Your task to perform on an android device: delete browsing data in the chrome app Image 0: 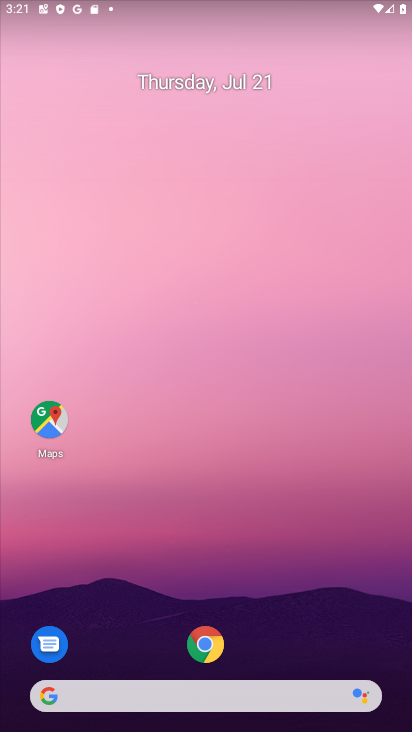
Step 0: click (209, 649)
Your task to perform on an android device: delete browsing data in the chrome app Image 1: 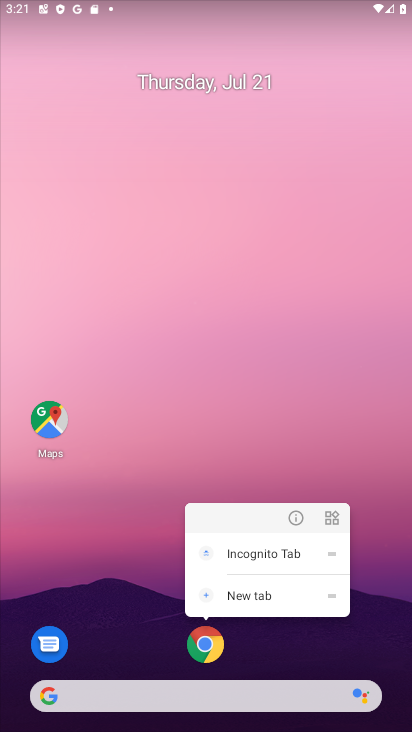
Step 1: click (205, 644)
Your task to perform on an android device: delete browsing data in the chrome app Image 2: 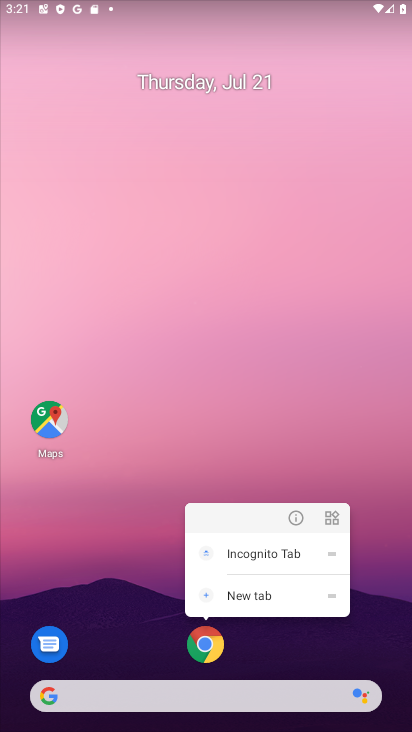
Step 2: click (213, 641)
Your task to perform on an android device: delete browsing data in the chrome app Image 3: 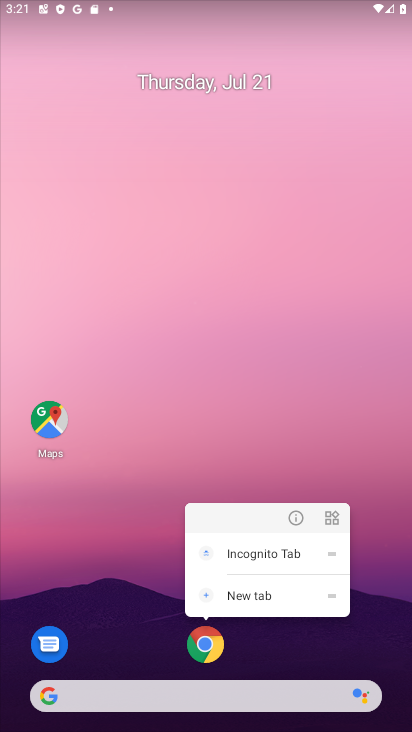
Step 3: click (213, 641)
Your task to perform on an android device: delete browsing data in the chrome app Image 4: 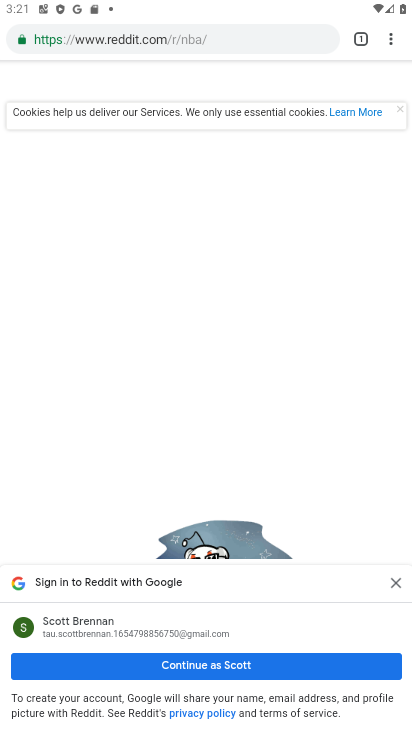
Step 4: drag from (389, 36) to (260, 512)
Your task to perform on an android device: delete browsing data in the chrome app Image 5: 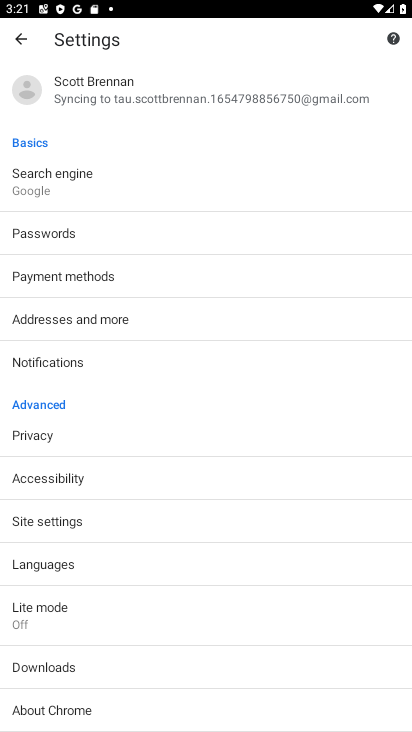
Step 5: click (66, 443)
Your task to perform on an android device: delete browsing data in the chrome app Image 6: 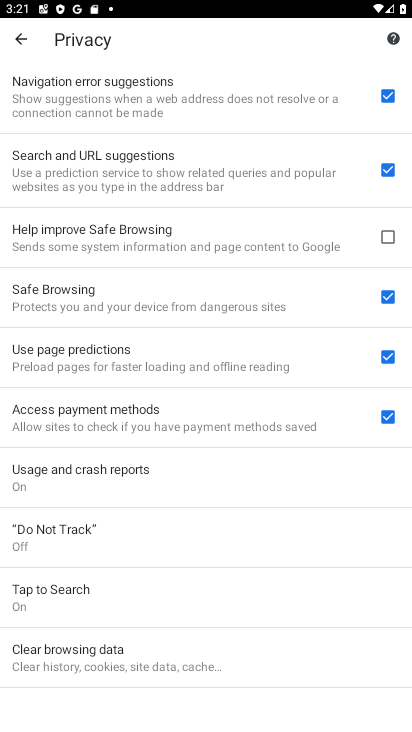
Step 6: click (122, 653)
Your task to perform on an android device: delete browsing data in the chrome app Image 7: 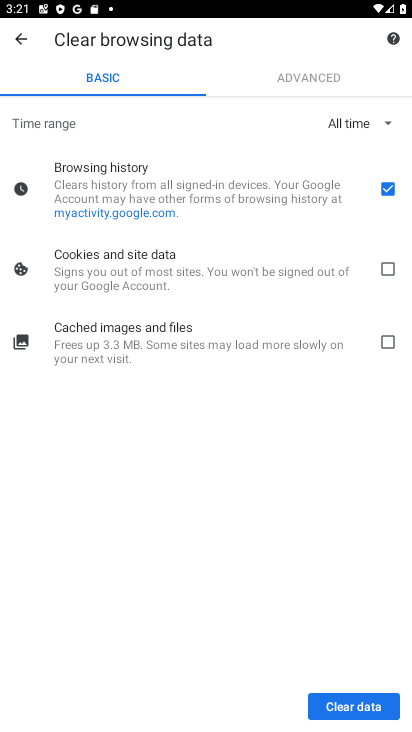
Step 7: click (376, 707)
Your task to perform on an android device: delete browsing data in the chrome app Image 8: 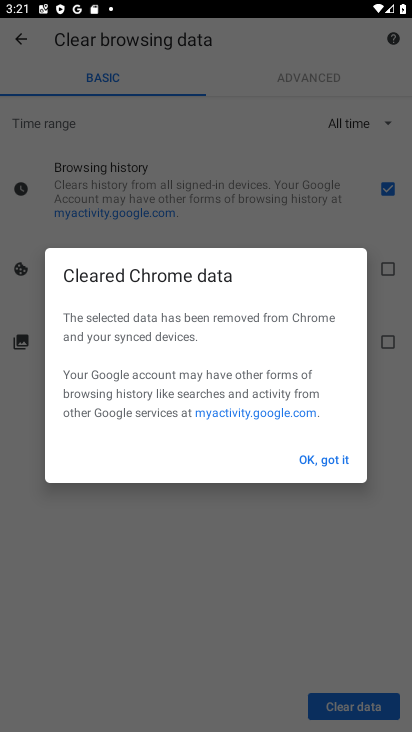
Step 8: click (320, 462)
Your task to perform on an android device: delete browsing data in the chrome app Image 9: 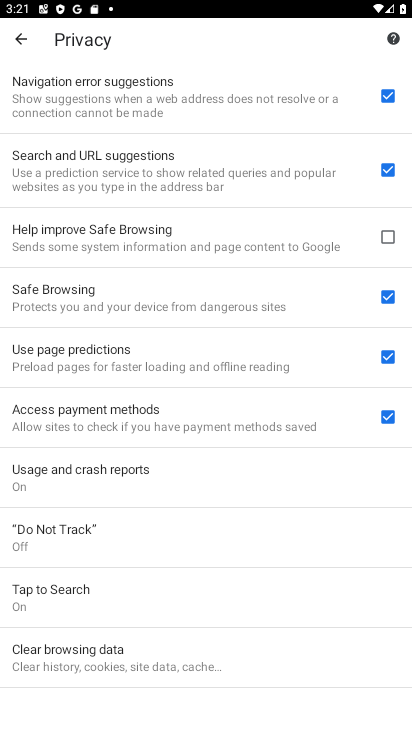
Step 9: task complete